Your task to perform on an android device: install app "Truecaller" Image 0: 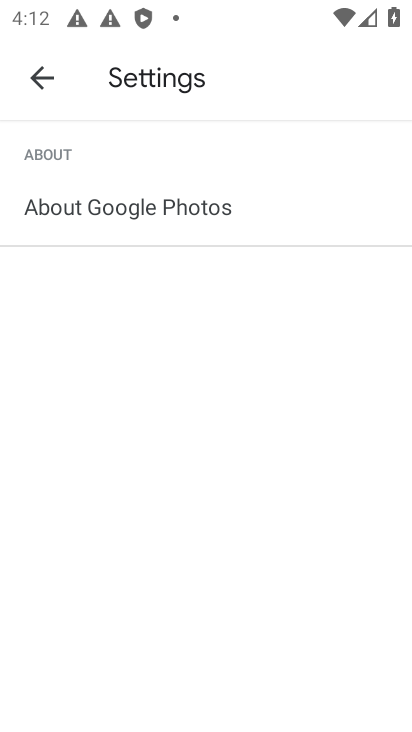
Step 0: press home button
Your task to perform on an android device: install app "Truecaller" Image 1: 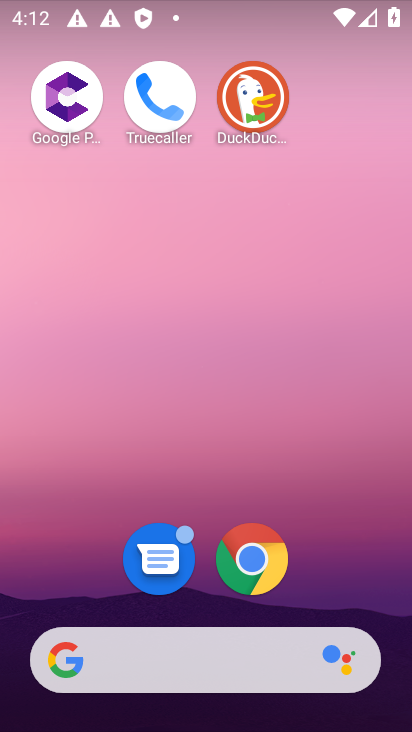
Step 1: drag from (197, 575) to (146, 7)
Your task to perform on an android device: install app "Truecaller" Image 2: 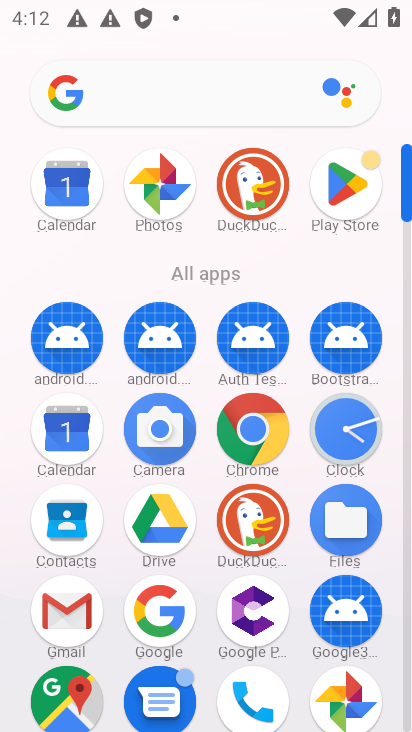
Step 2: click (350, 197)
Your task to perform on an android device: install app "Truecaller" Image 3: 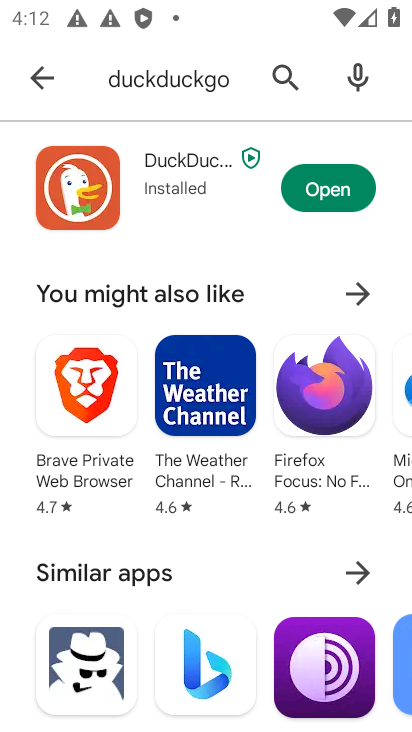
Step 3: click (185, 93)
Your task to perform on an android device: install app "Truecaller" Image 4: 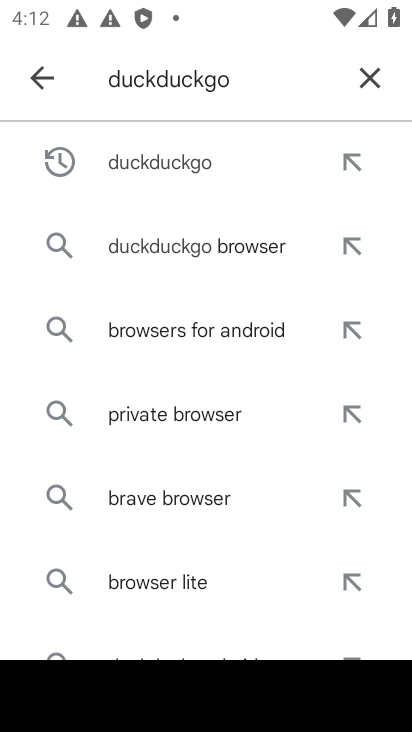
Step 4: click (353, 72)
Your task to perform on an android device: install app "Truecaller" Image 5: 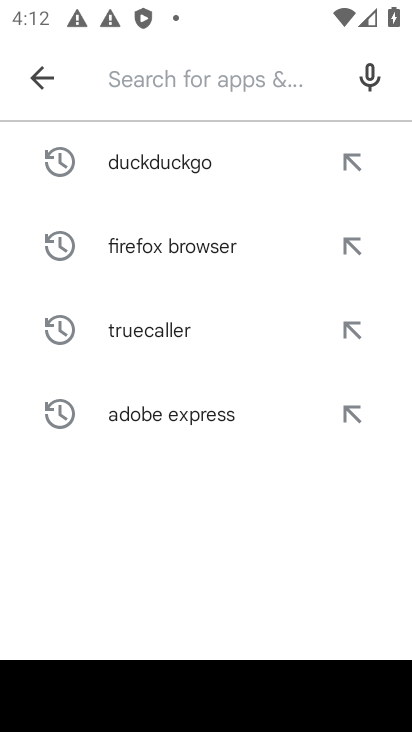
Step 5: type "truecaller"
Your task to perform on an android device: install app "Truecaller" Image 6: 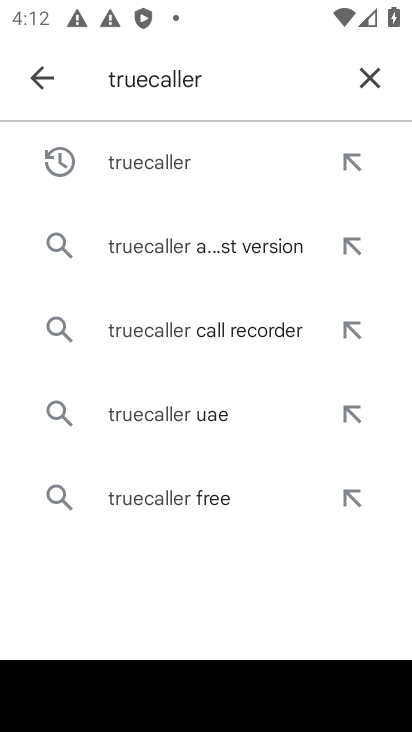
Step 6: click (186, 164)
Your task to perform on an android device: install app "Truecaller" Image 7: 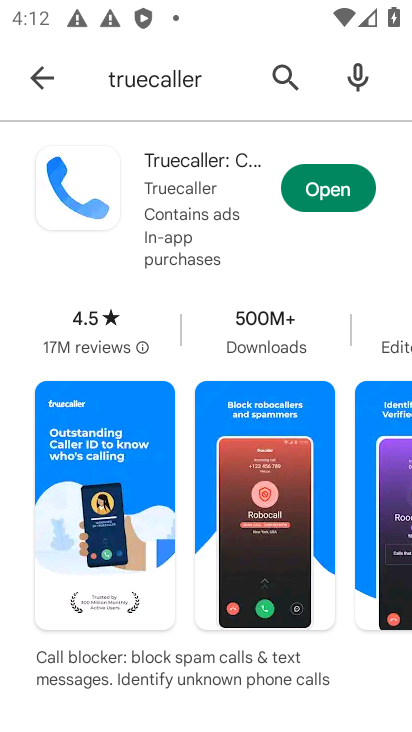
Step 7: click (87, 175)
Your task to perform on an android device: install app "Truecaller" Image 8: 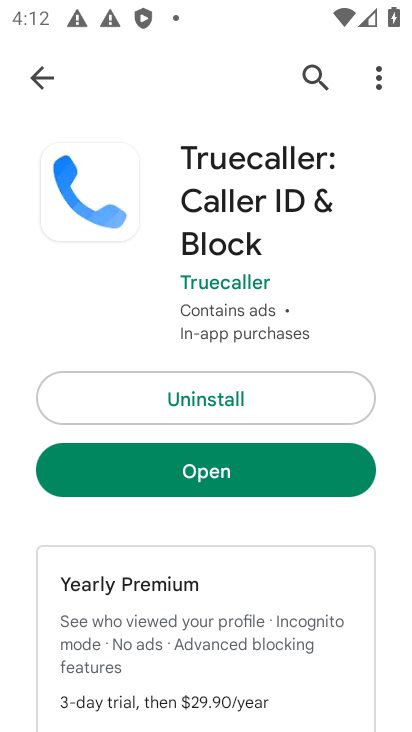
Step 8: task complete